Your task to perform on an android device: toggle data saver in the chrome app Image 0: 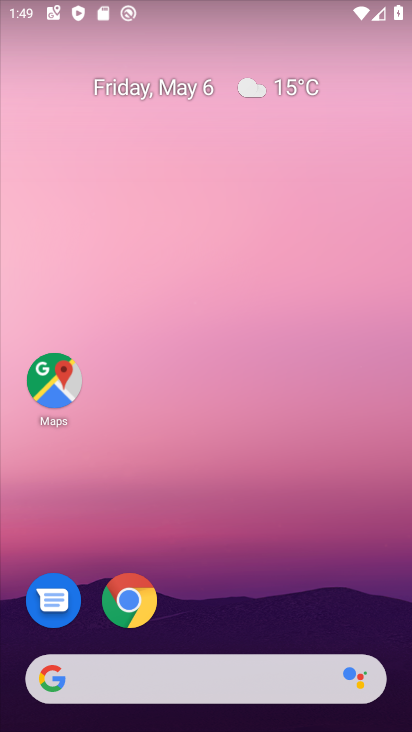
Step 0: drag from (309, 553) to (267, 129)
Your task to perform on an android device: toggle data saver in the chrome app Image 1: 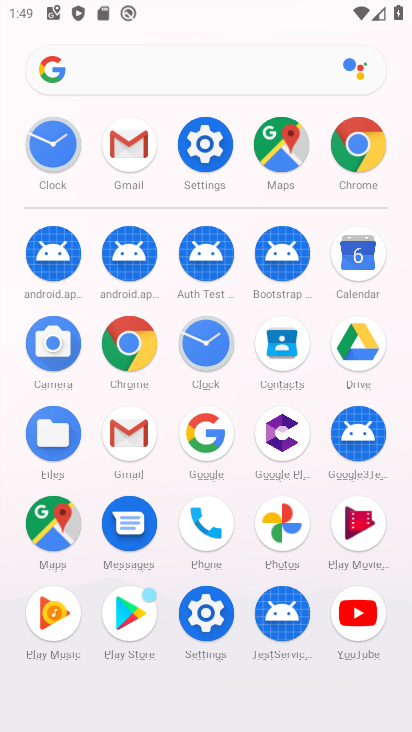
Step 1: click (135, 355)
Your task to perform on an android device: toggle data saver in the chrome app Image 2: 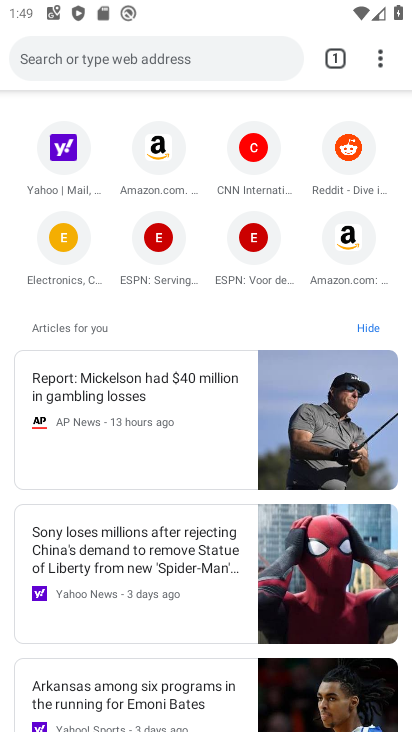
Step 2: click (382, 60)
Your task to perform on an android device: toggle data saver in the chrome app Image 3: 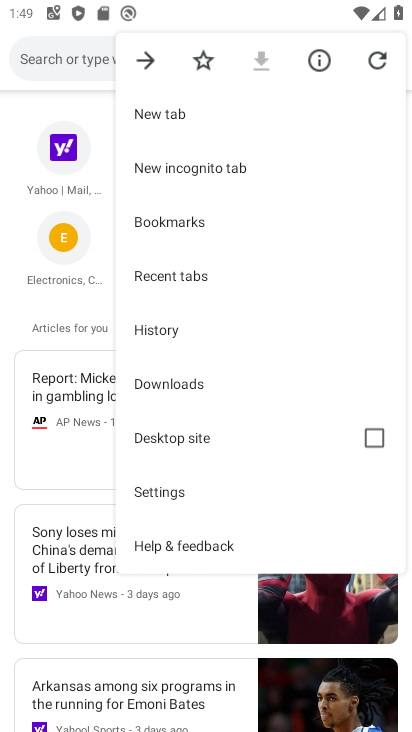
Step 3: click (232, 482)
Your task to perform on an android device: toggle data saver in the chrome app Image 4: 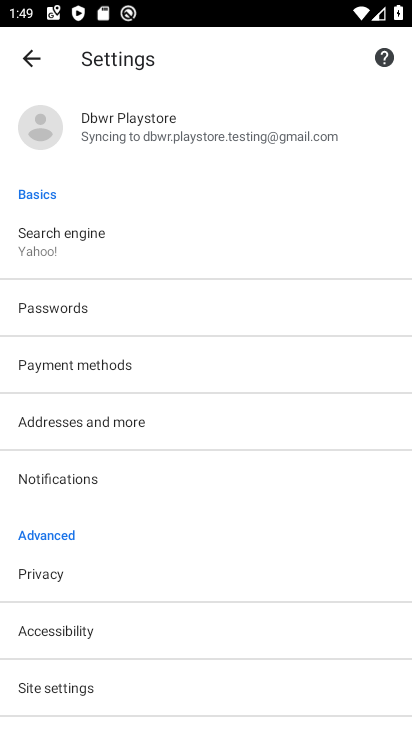
Step 4: drag from (111, 687) to (193, 387)
Your task to perform on an android device: toggle data saver in the chrome app Image 5: 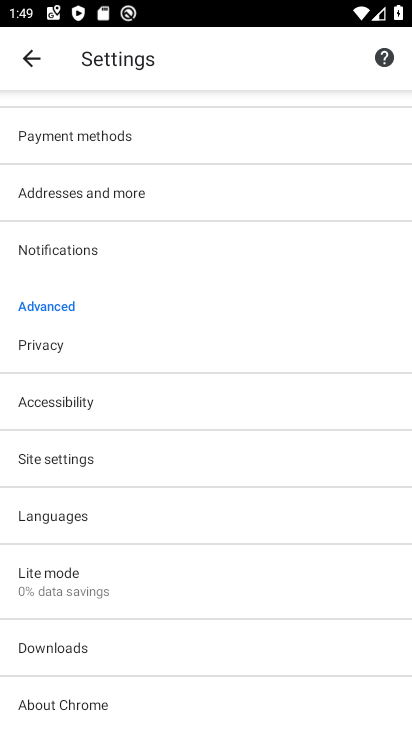
Step 5: click (65, 580)
Your task to perform on an android device: toggle data saver in the chrome app Image 6: 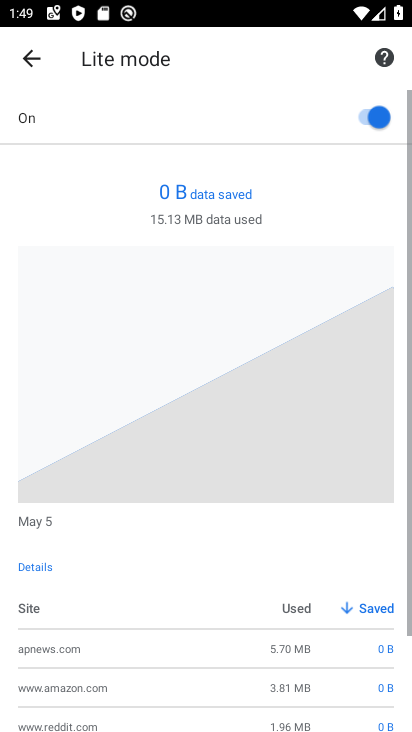
Step 6: click (344, 128)
Your task to perform on an android device: toggle data saver in the chrome app Image 7: 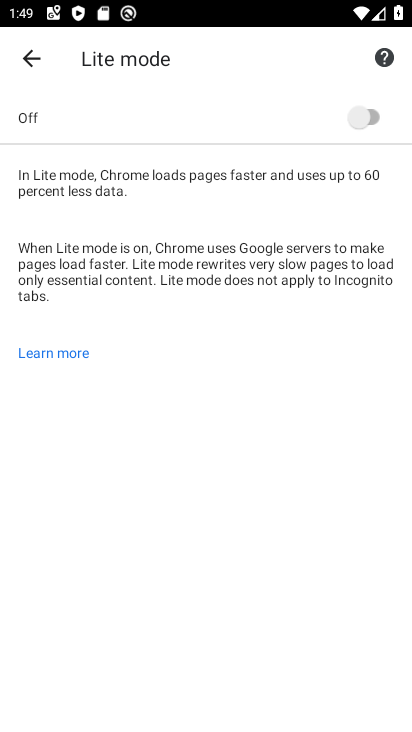
Step 7: task complete